Your task to perform on an android device: Go to battery settings Image 0: 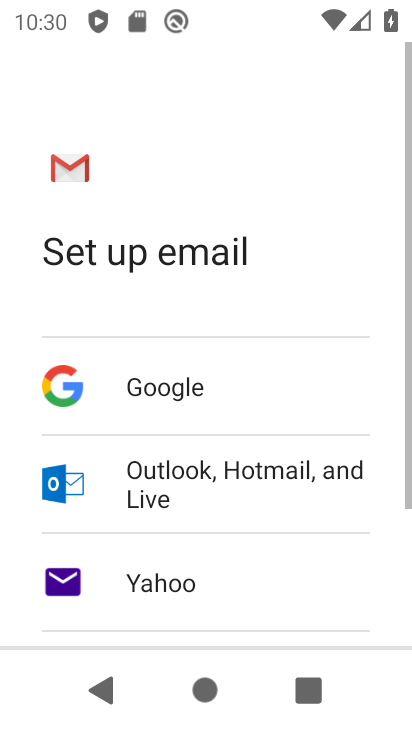
Step 0: press home button
Your task to perform on an android device: Go to battery settings Image 1: 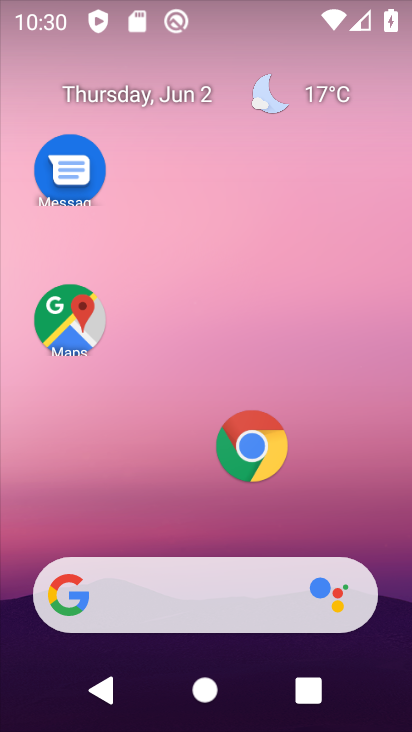
Step 1: drag from (289, 520) to (368, 98)
Your task to perform on an android device: Go to battery settings Image 2: 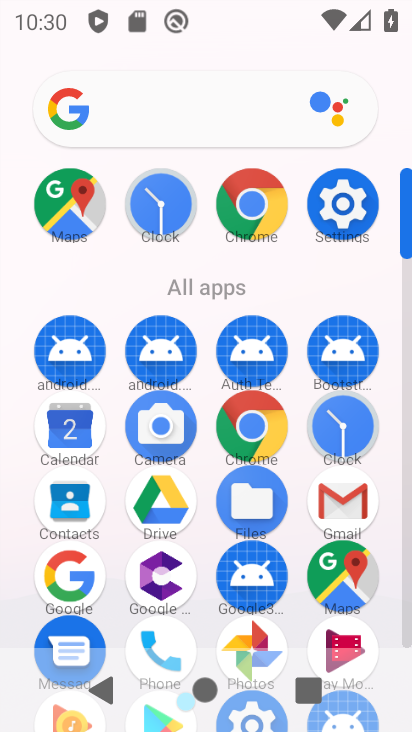
Step 2: click (358, 184)
Your task to perform on an android device: Go to battery settings Image 3: 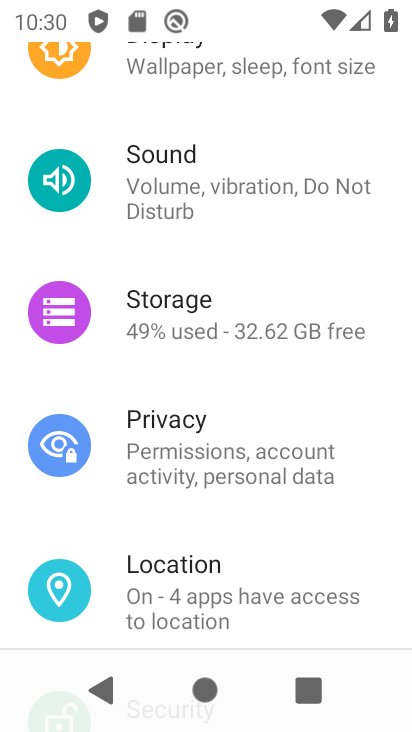
Step 3: drag from (283, 189) to (261, 685)
Your task to perform on an android device: Go to battery settings Image 4: 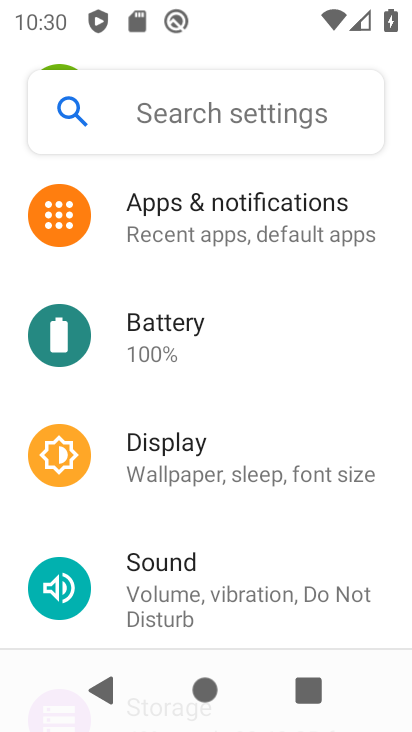
Step 4: click (170, 365)
Your task to perform on an android device: Go to battery settings Image 5: 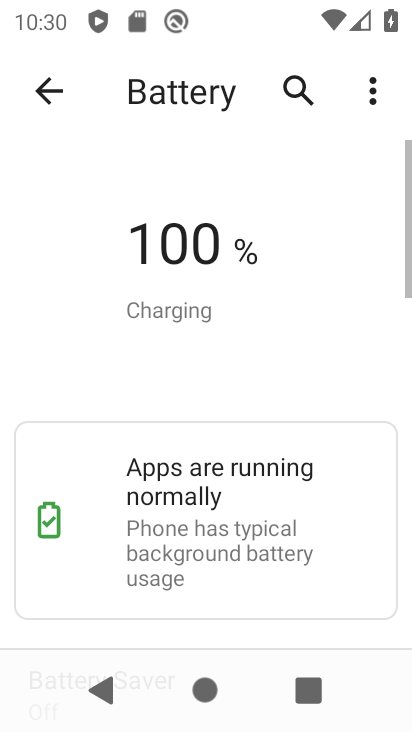
Step 5: task complete